Your task to perform on an android device: change the clock display to show seconds Image 0: 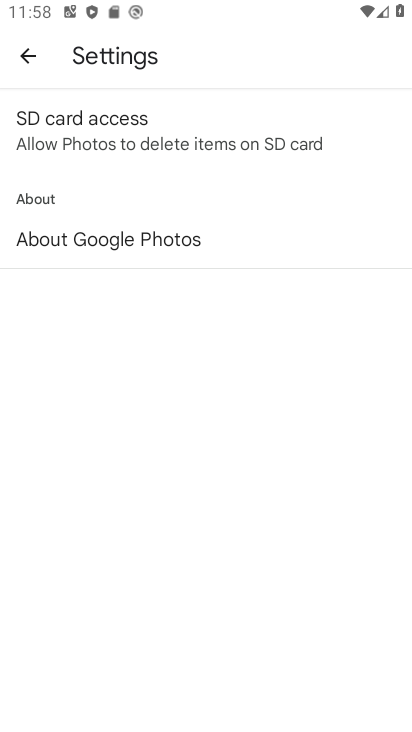
Step 0: press home button
Your task to perform on an android device: change the clock display to show seconds Image 1: 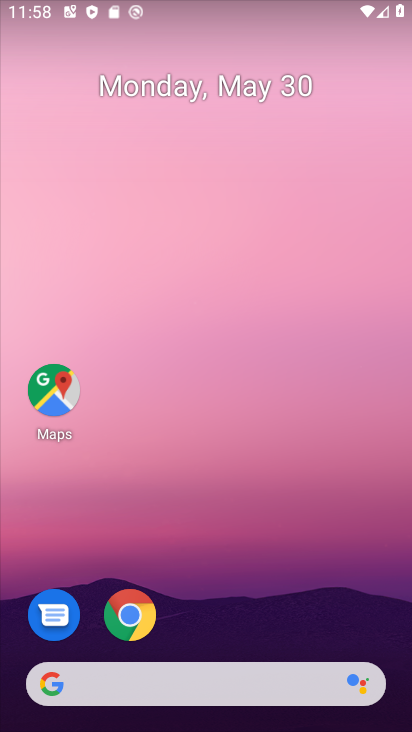
Step 1: drag from (363, 622) to (360, 225)
Your task to perform on an android device: change the clock display to show seconds Image 2: 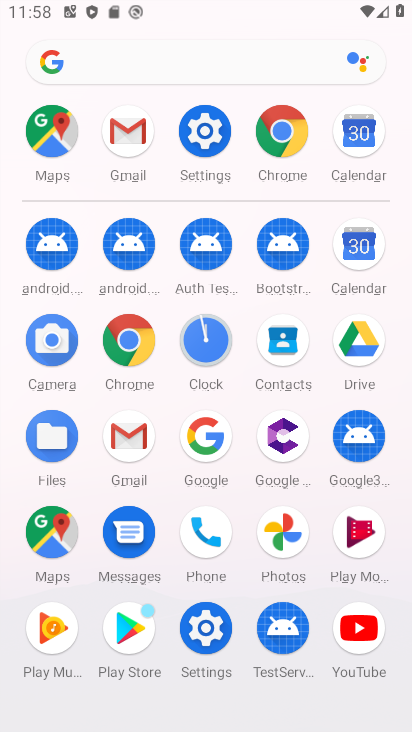
Step 2: click (203, 339)
Your task to perform on an android device: change the clock display to show seconds Image 3: 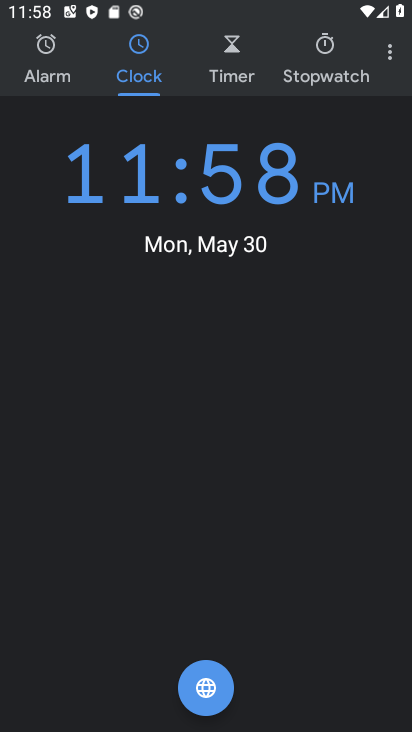
Step 3: click (388, 59)
Your task to perform on an android device: change the clock display to show seconds Image 4: 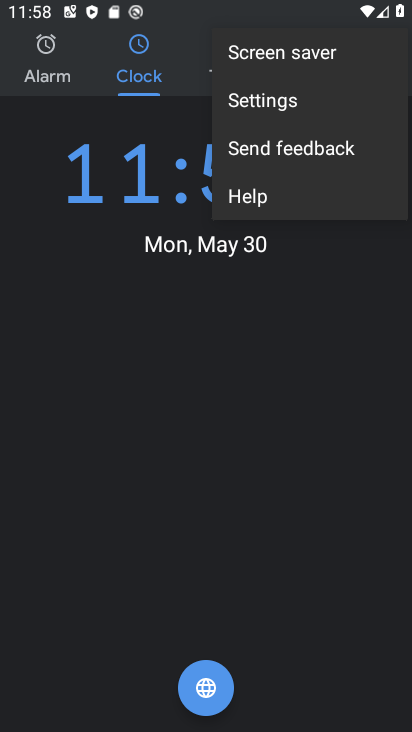
Step 4: click (335, 93)
Your task to perform on an android device: change the clock display to show seconds Image 5: 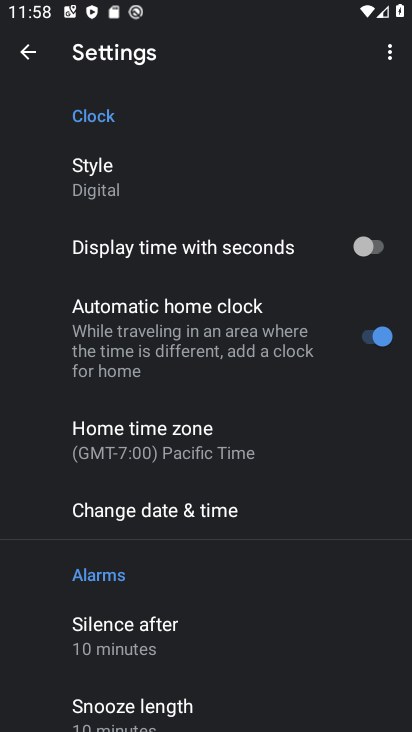
Step 5: drag from (323, 427) to (327, 356)
Your task to perform on an android device: change the clock display to show seconds Image 6: 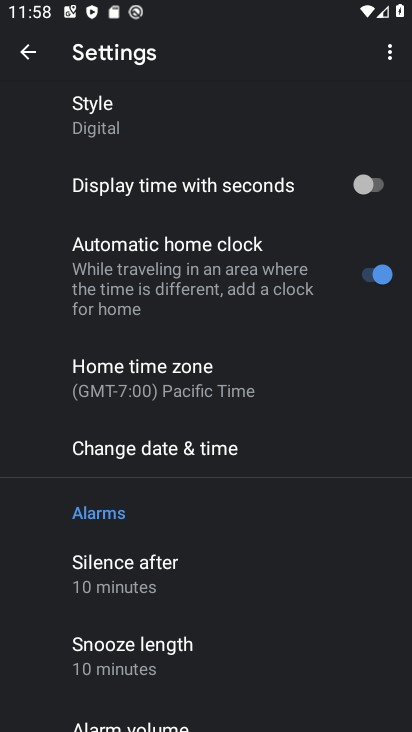
Step 6: drag from (332, 504) to (335, 407)
Your task to perform on an android device: change the clock display to show seconds Image 7: 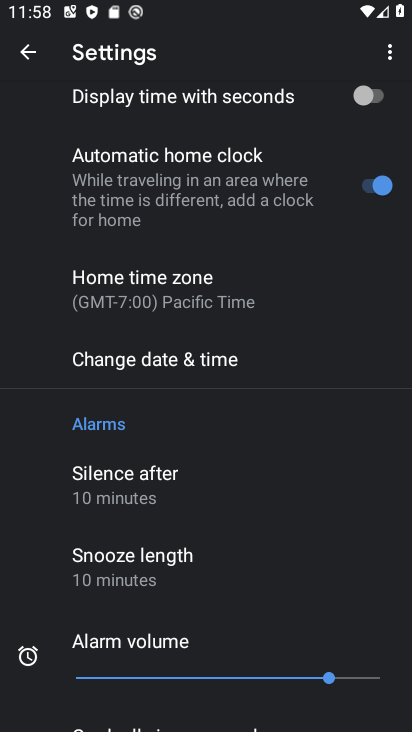
Step 7: drag from (338, 519) to (347, 427)
Your task to perform on an android device: change the clock display to show seconds Image 8: 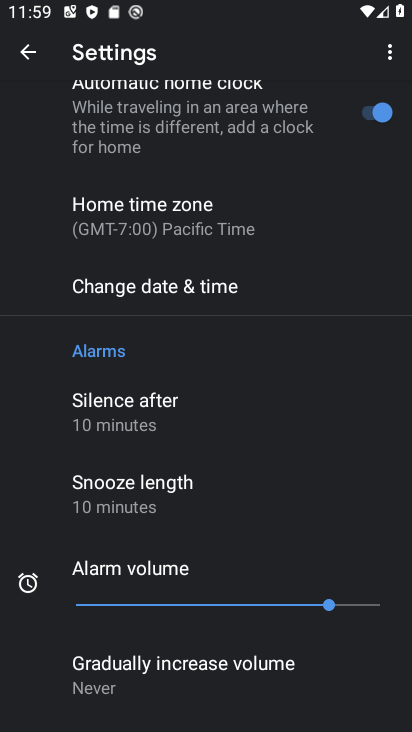
Step 8: drag from (335, 532) to (339, 441)
Your task to perform on an android device: change the clock display to show seconds Image 9: 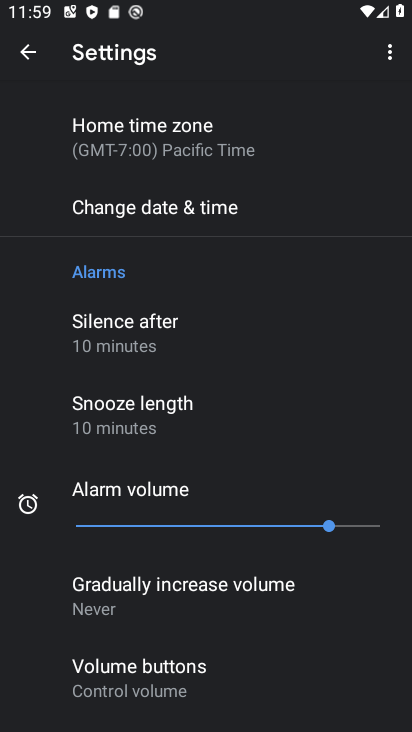
Step 9: drag from (332, 567) to (331, 476)
Your task to perform on an android device: change the clock display to show seconds Image 10: 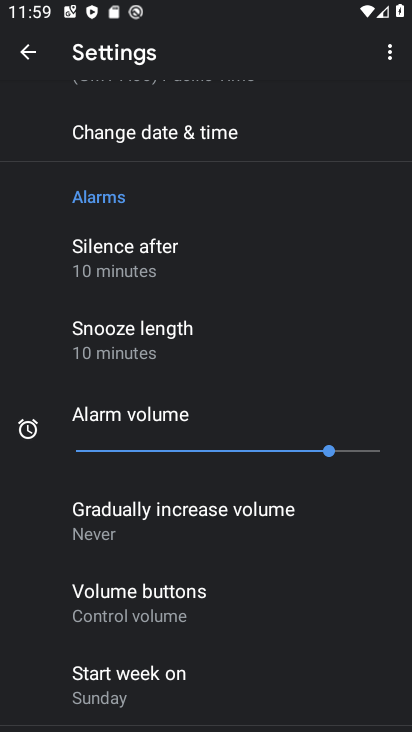
Step 10: drag from (328, 574) to (331, 472)
Your task to perform on an android device: change the clock display to show seconds Image 11: 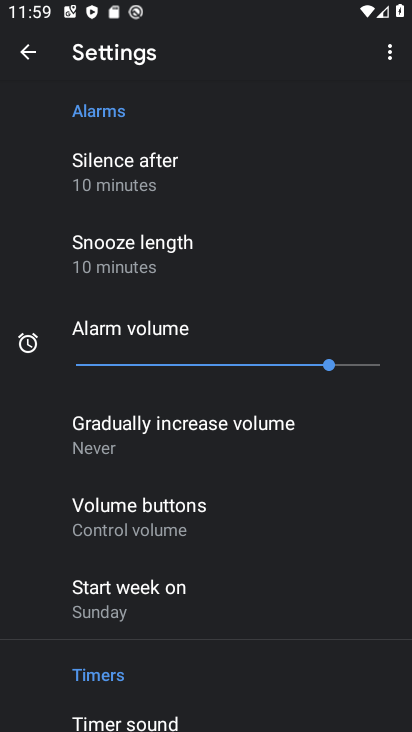
Step 11: drag from (330, 567) to (331, 481)
Your task to perform on an android device: change the clock display to show seconds Image 12: 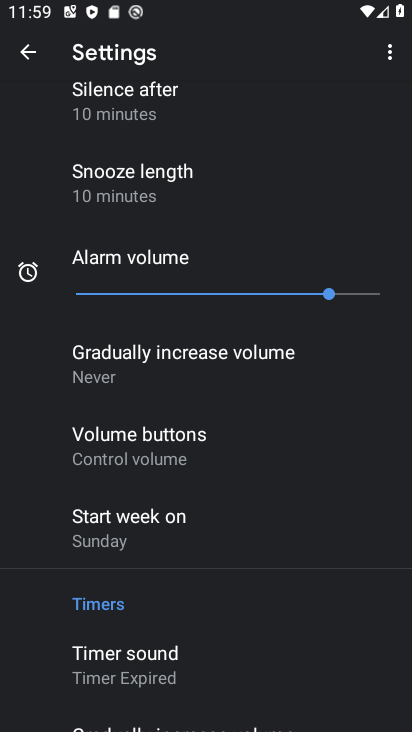
Step 12: drag from (333, 592) to (343, 502)
Your task to perform on an android device: change the clock display to show seconds Image 13: 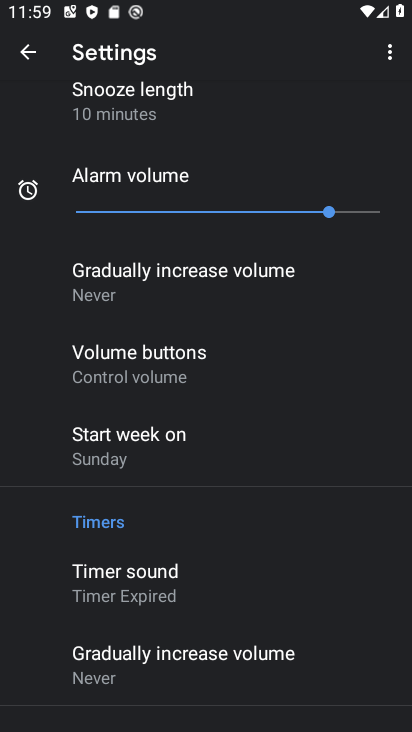
Step 13: drag from (349, 594) to (350, 514)
Your task to perform on an android device: change the clock display to show seconds Image 14: 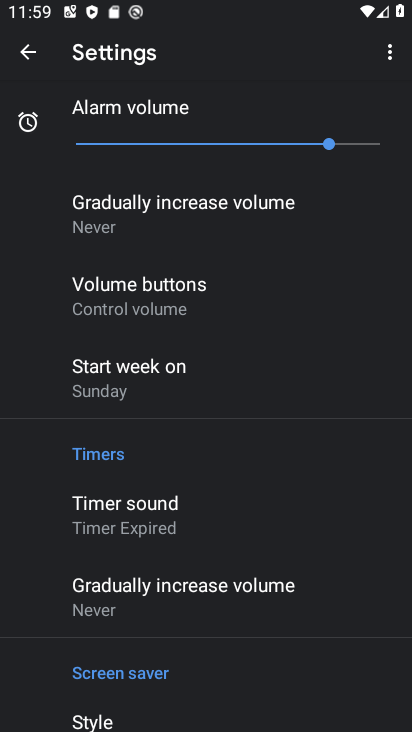
Step 14: drag from (363, 624) to (367, 463)
Your task to perform on an android device: change the clock display to show seconds Image 15: 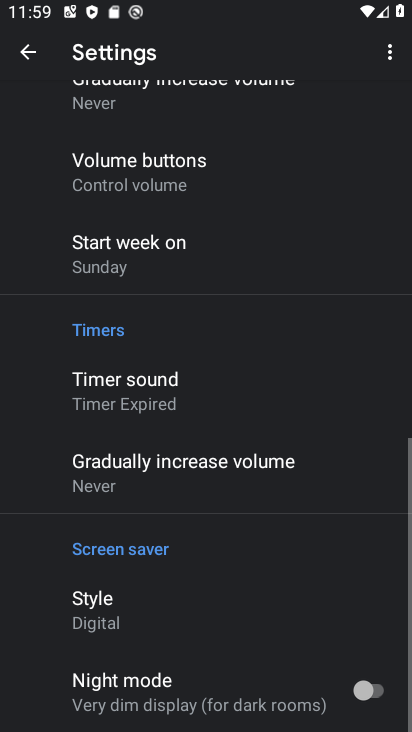
Step 15: drag from (360, 341) to (359, 442)
Your task to perform on an android device: change the clock display to show seconds Image 16: 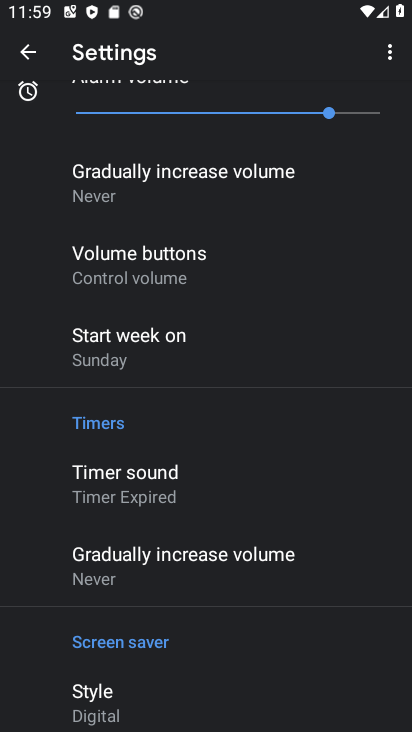
Step 16: drag from (348, 316) to (348, 412)
Your task to perform on an android device: change the clock display to show seconds Image 17: 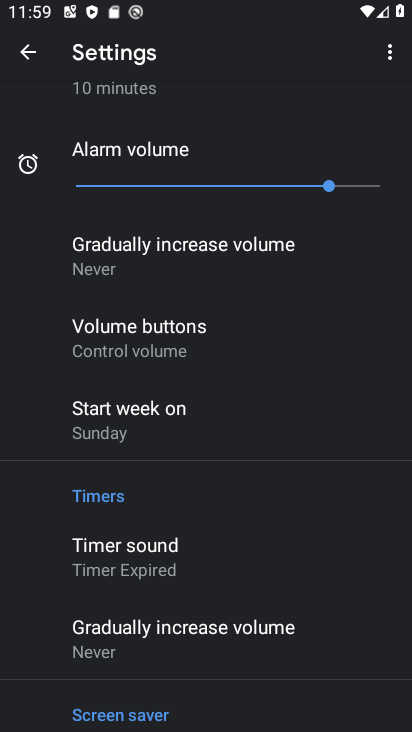
Step 17: drag from (346, 270) to (347, 361)
Your task to perform on an android device: change the clock display to show seconds Image 18: 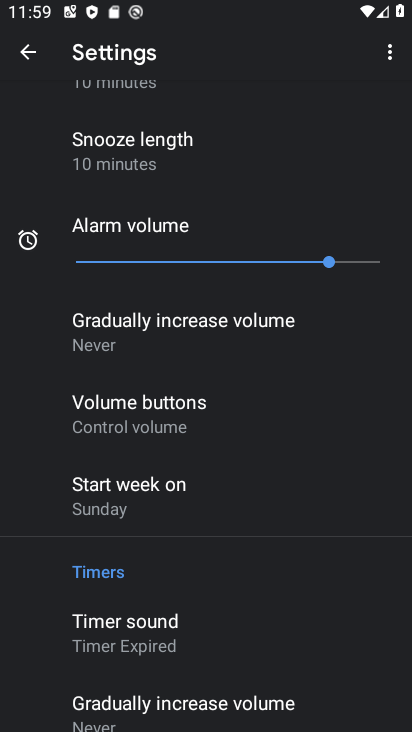
Step 18: drag from (355, 254) to (353, 360)
Your task to perform on an android device: change the clock display to show seconds Image 19: 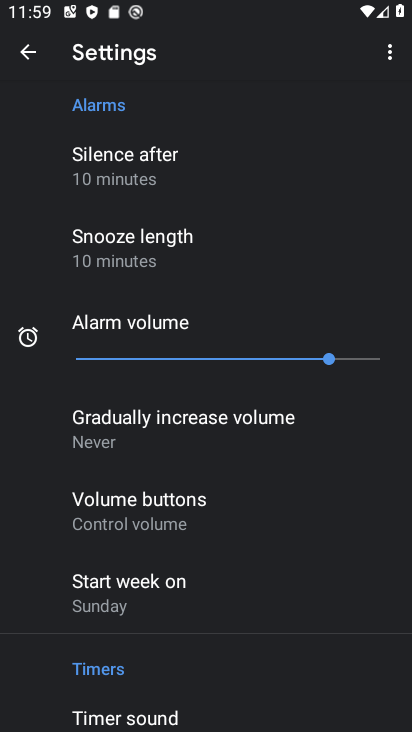
Step 19: drag from (350, 209) to (358, 339)
Your task to perform on an android device: change the clock display to show seconds Image 20: 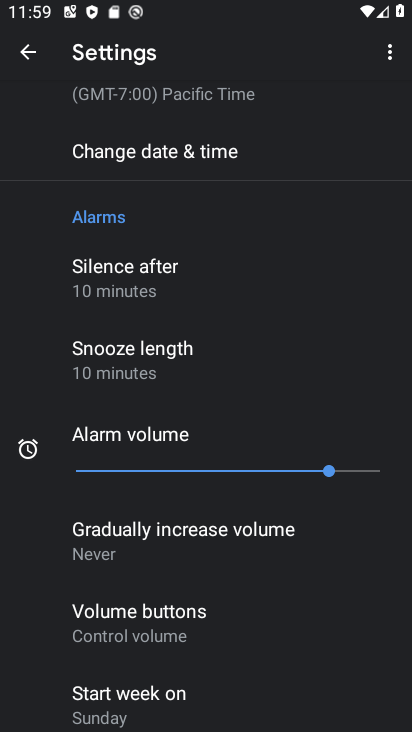
Step 20: drag from (341, 209) to (337, 383)
Your task to perform on an android device: change the clock display to show seconds Image 21: 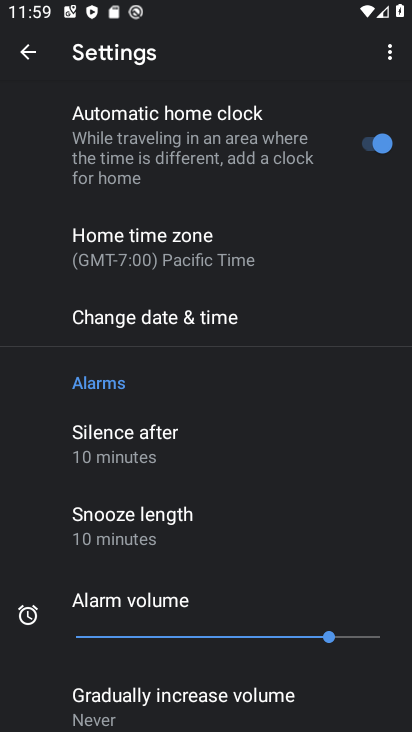
Step 21: drag from (329, 187) to (325, 361)
Your task to perform on an android device: change the clock display to show seconds Image 22: 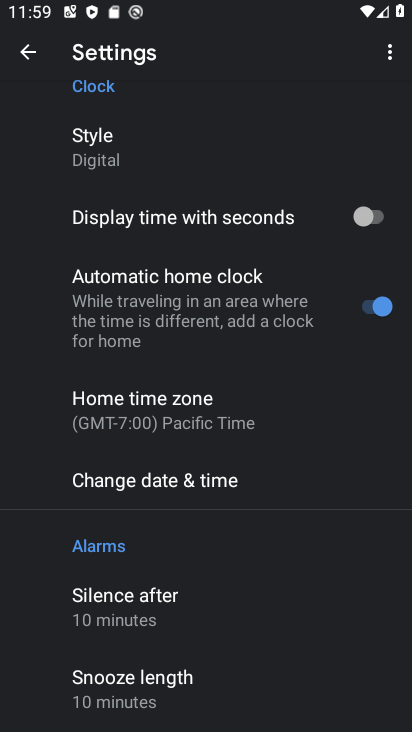
Step 22: click (362, 224)
Your task to perform on an android device: change the clock display to show seconds Image 23: 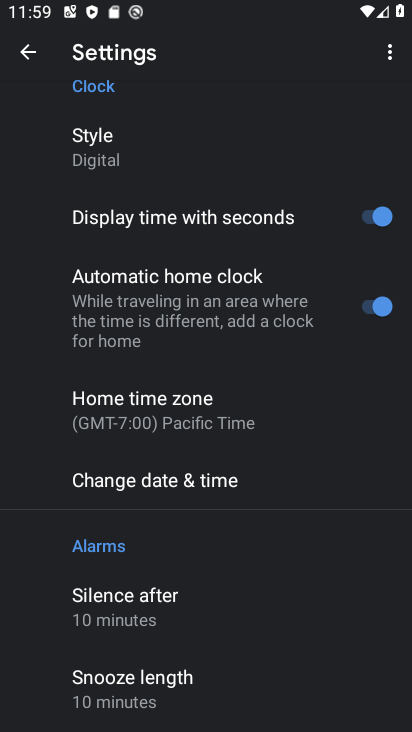
Step 23: task complete